Your task to perform on an android device: Open internet settings Image 0: 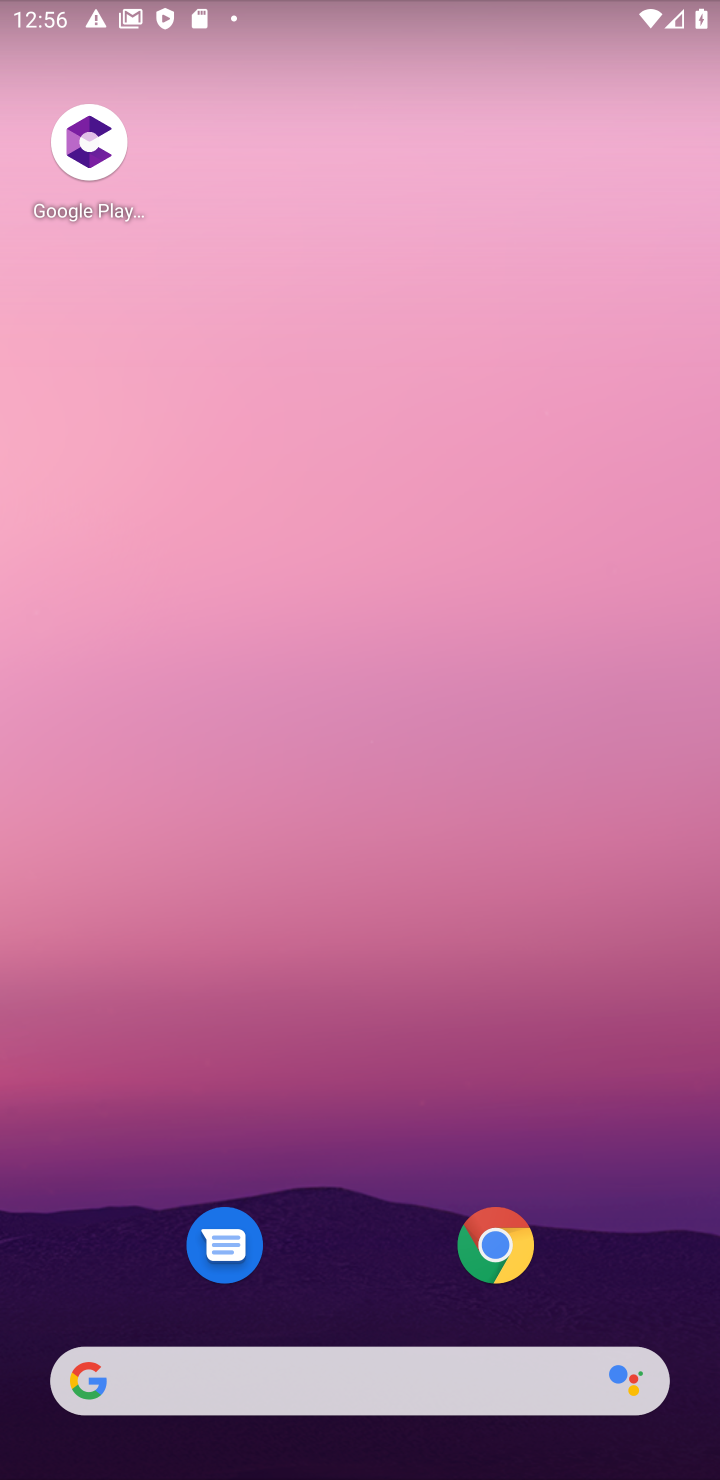
Step 0: drag from (410, 1134) to (370, 213)
Your task to perform on an android device: Open internet settings Image 1: 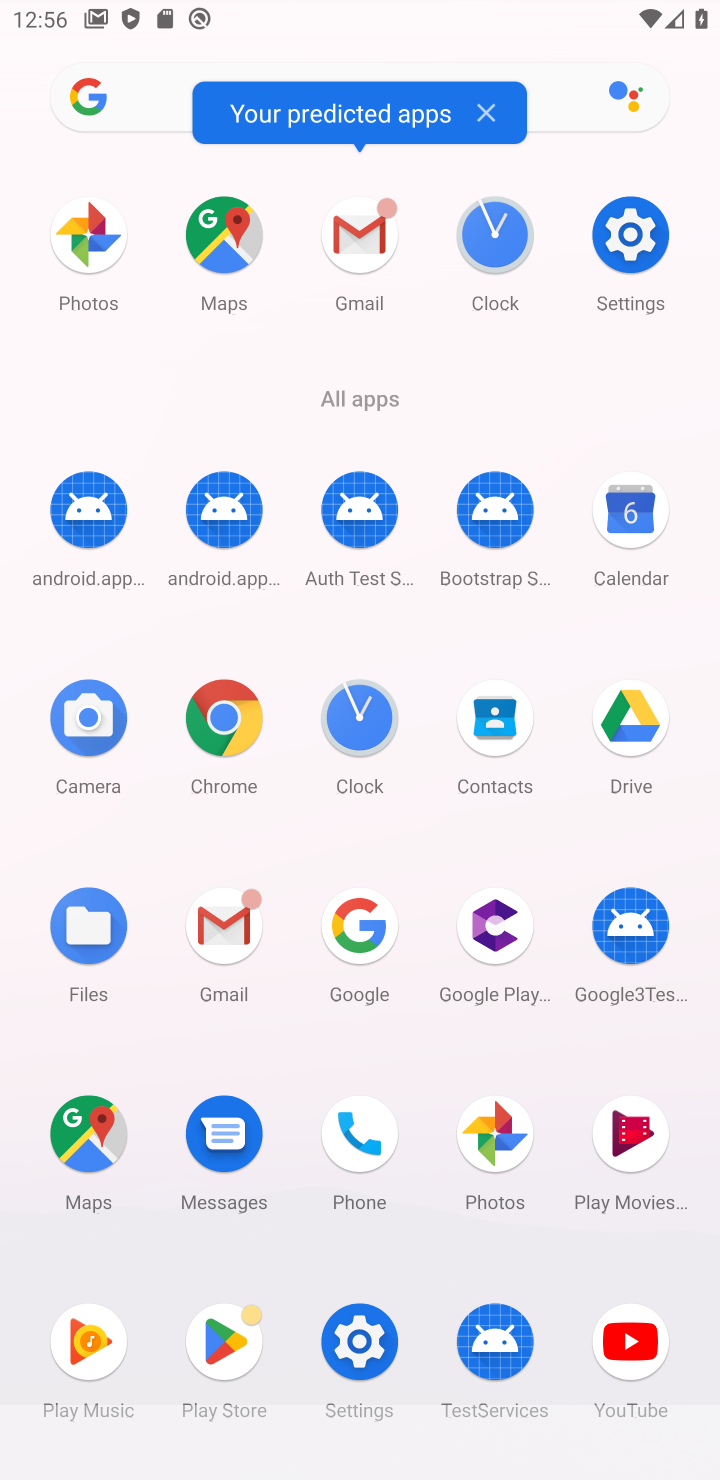
Step 1: click (617, 264)
Your task to perform on an android device: Open internet settings Image 2: 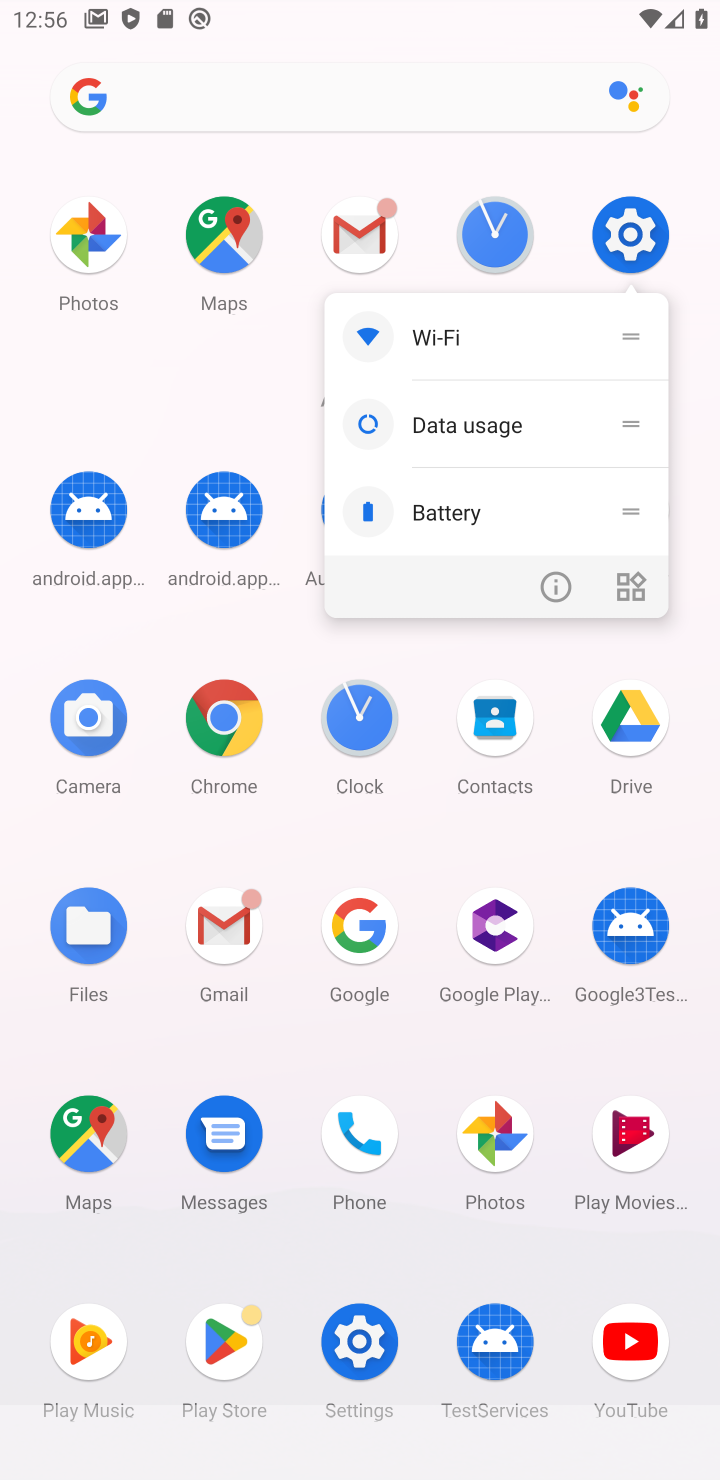
Step 2: click (360, 1336)
Your task to perform on an android device: Open internet settings Image 3: 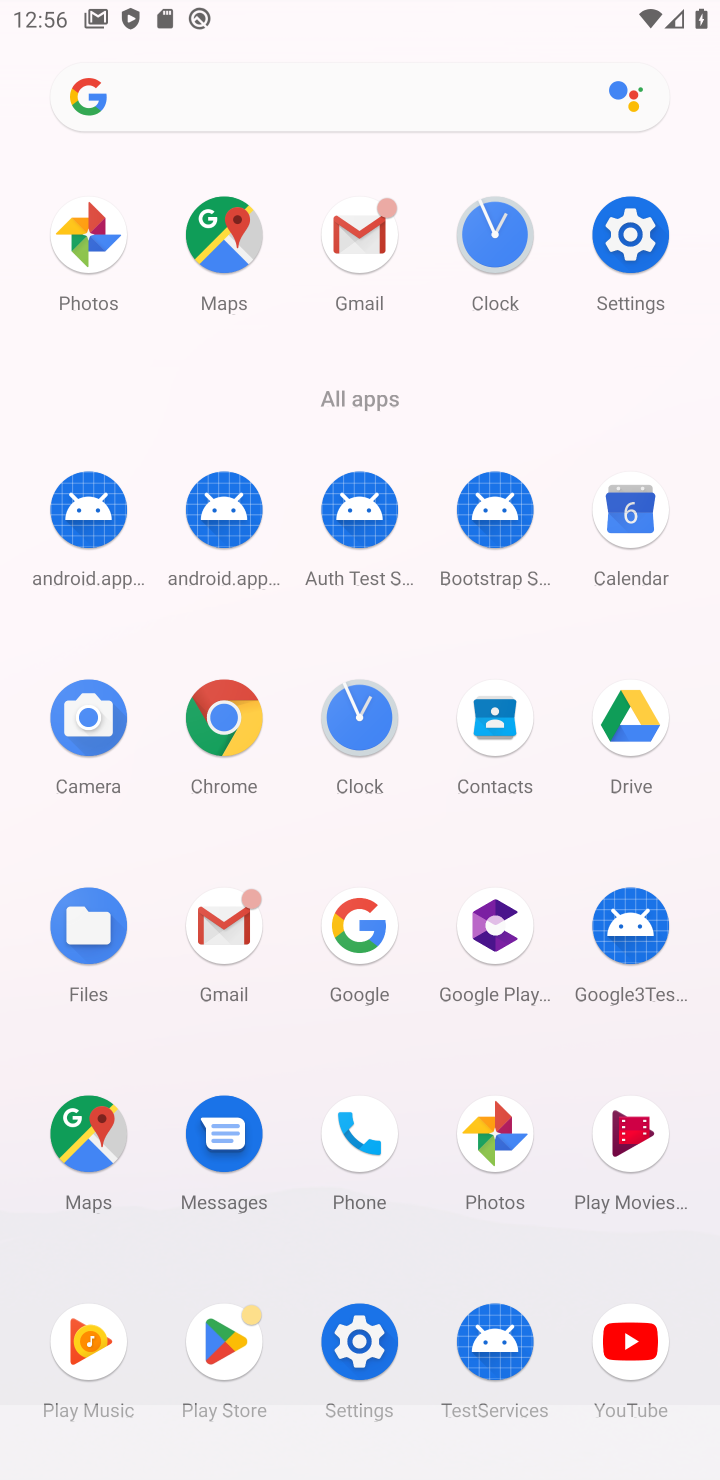
Step 3: click (360, 1336)
Your task to perform on an android device: Open internet settings Image 4: 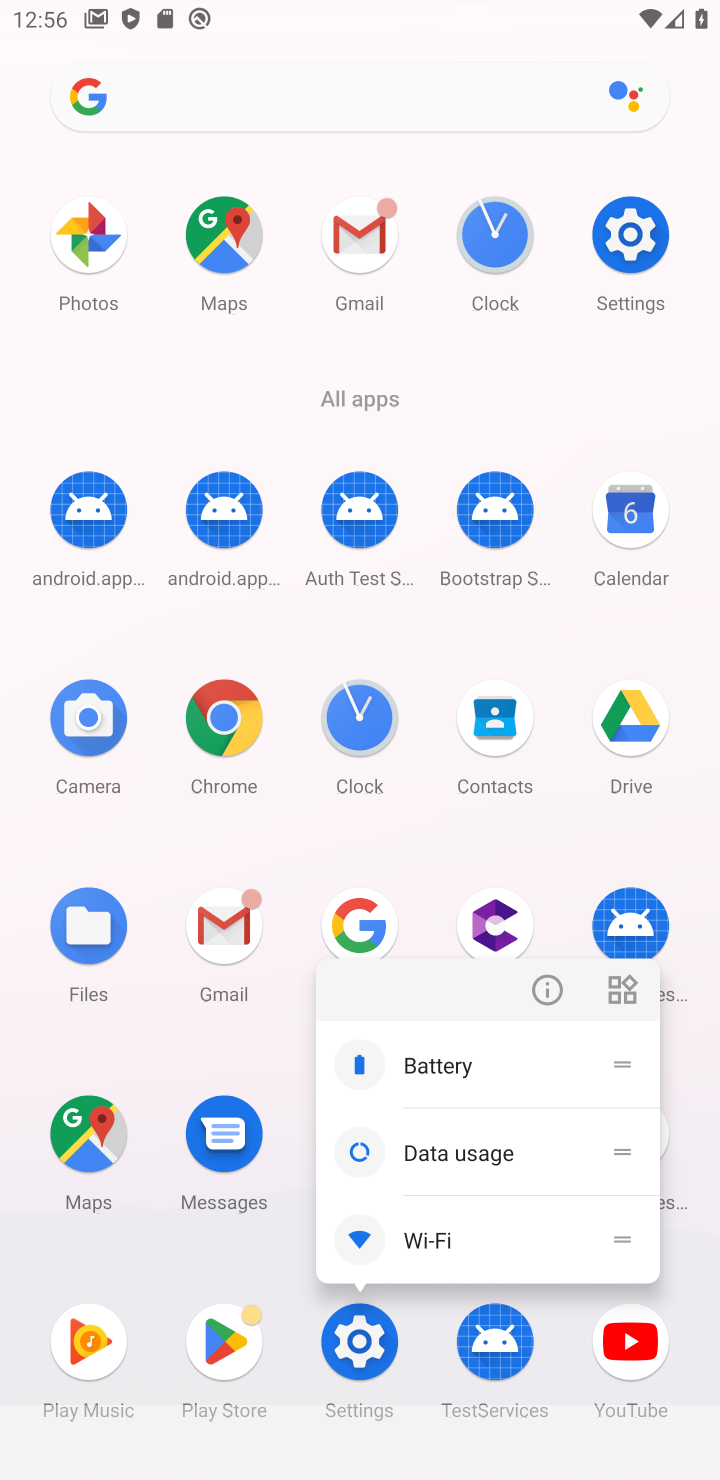
Step 4: task complete